Your task to perform on an android device: uninstall "Google Play Music" Image 0: 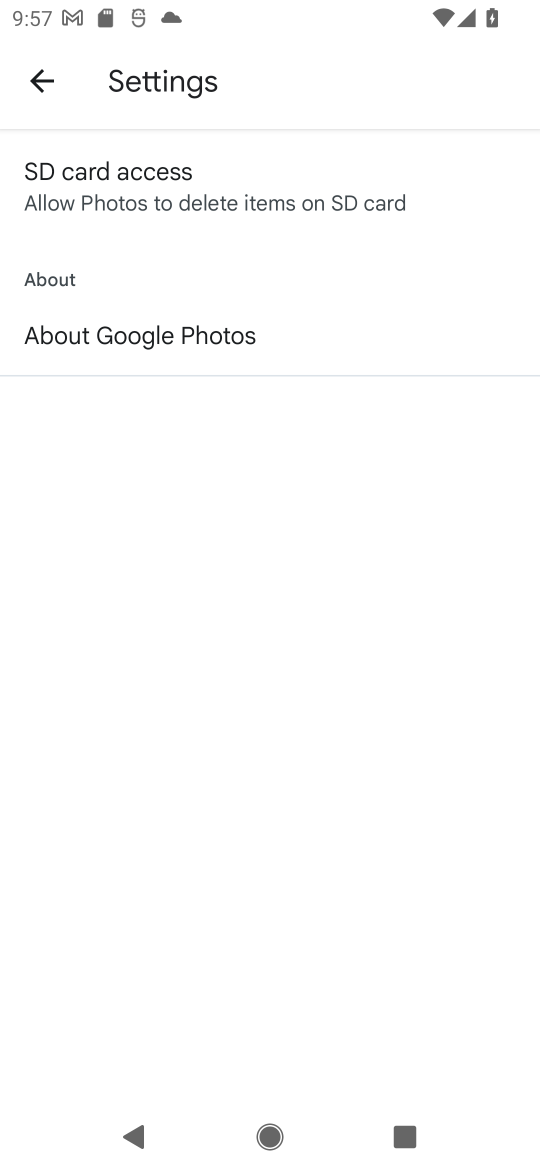
Step 0: press home button
Your task to perform on an android device: uninstall "Google Play Music" Image 1: 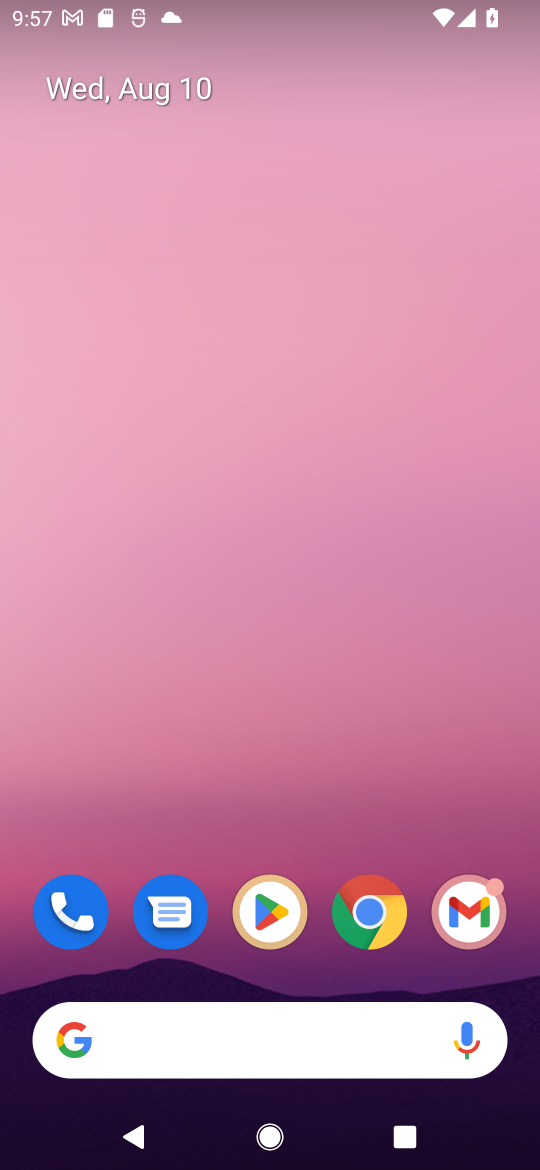
Step 1: drag from (522, 962) to (268, 89)
Your task to perform on an android device: uninstall "Google Play Music" Image 2: 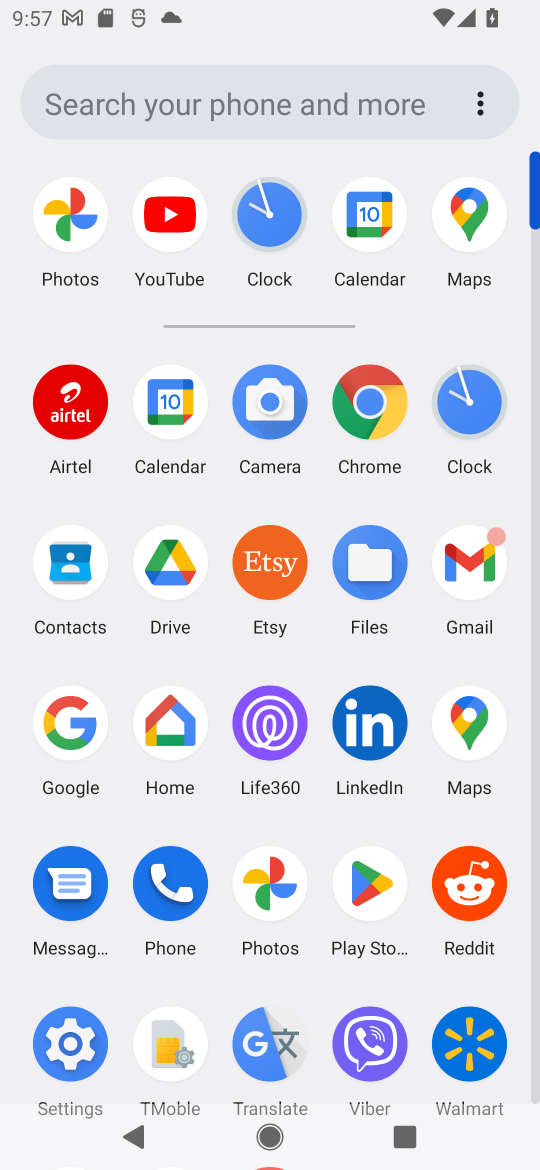
Step 2: click (399, 895)
Your task to perform on an android device: uninstall "Google Play Music" Image 3: 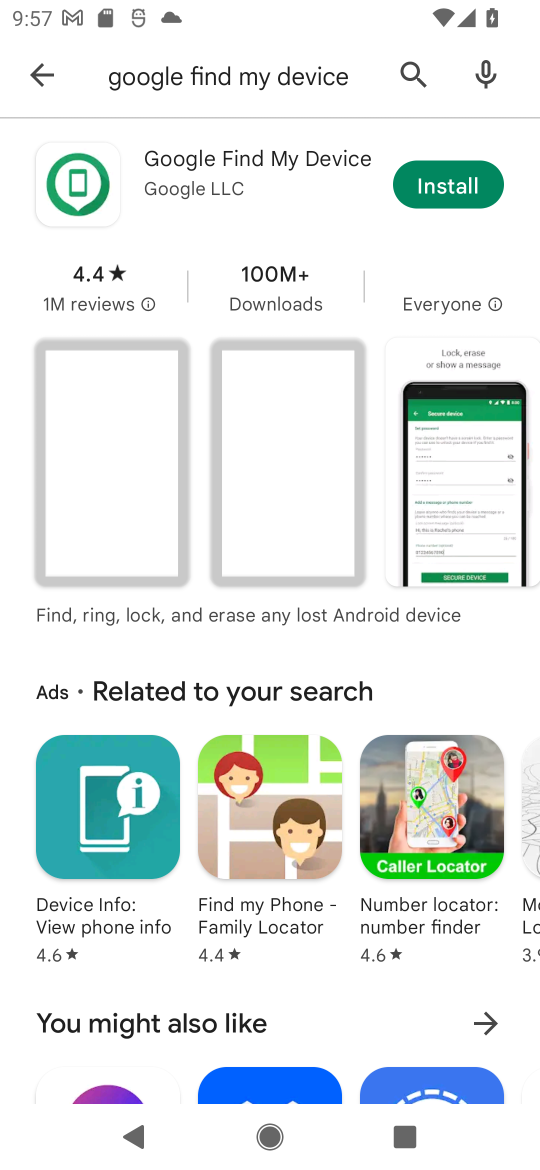
Step 3: press back button
Your task to perform on an android device: uninstall "Google Play Music" Image 4: 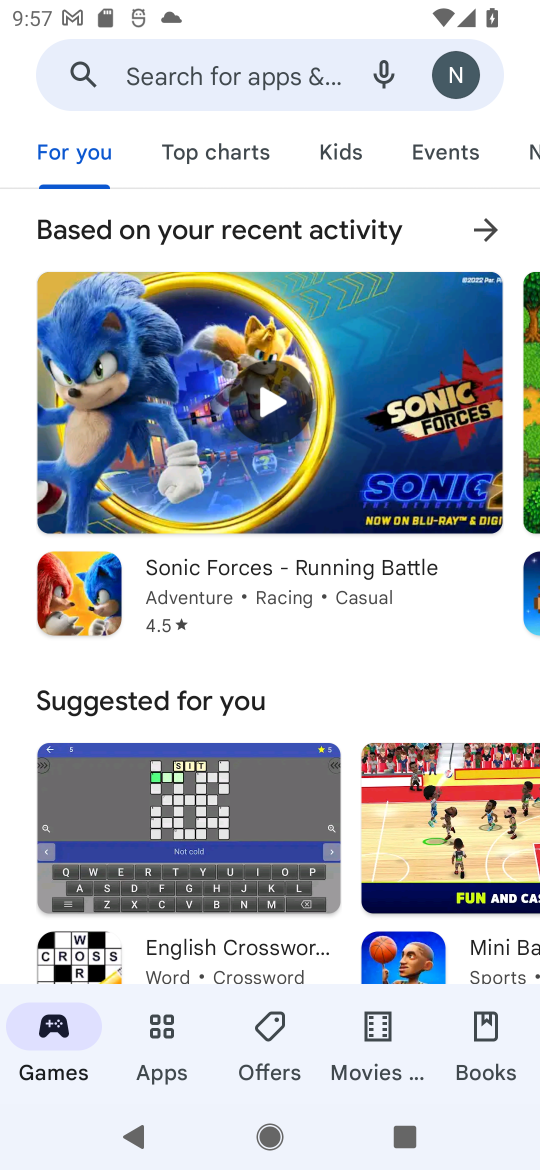
Step 4: click (177, 78)
Your task to perform on an android device: uninstall "Google Play Music" Image 5: 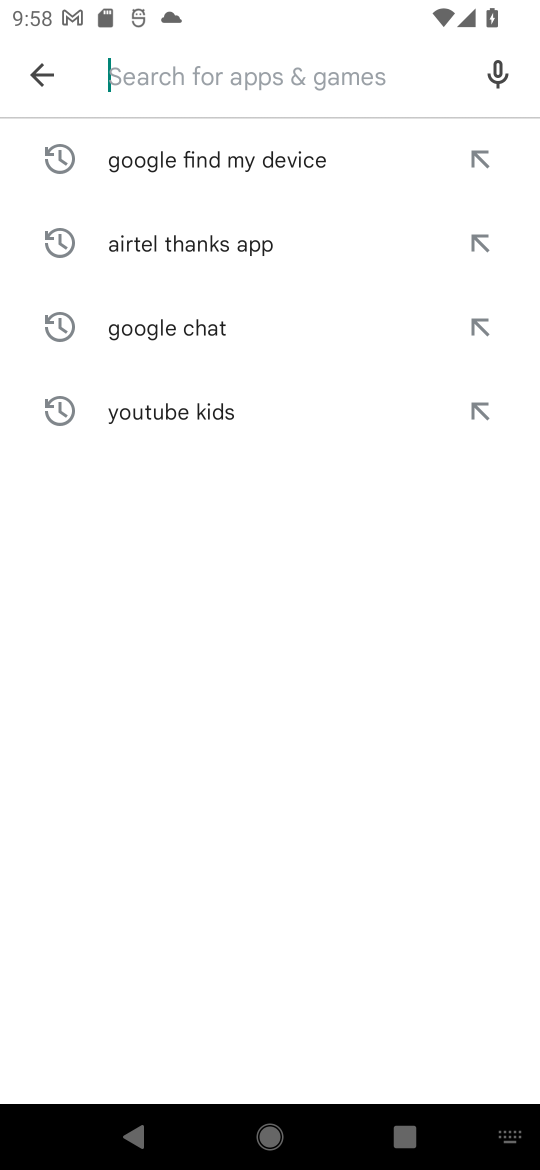
Step 5: type "Google Play Music"
Your task to perform on an android device: uninstall "Google Play Music" Image 6: 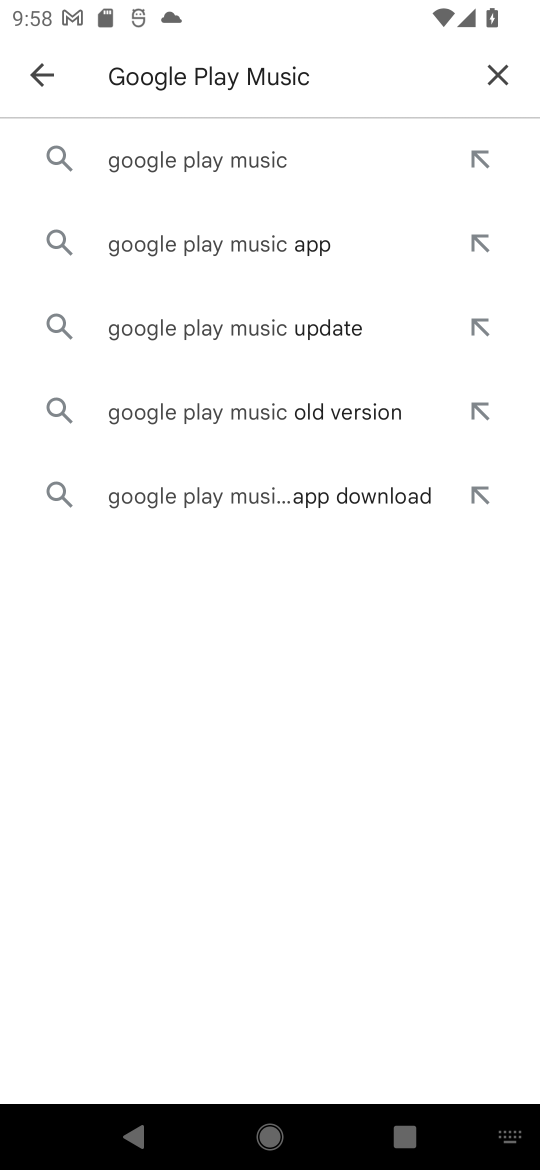
Step 6: click (231, 164)
Your task to perform on an android device: uninstall "Google Play Music" Image 7: 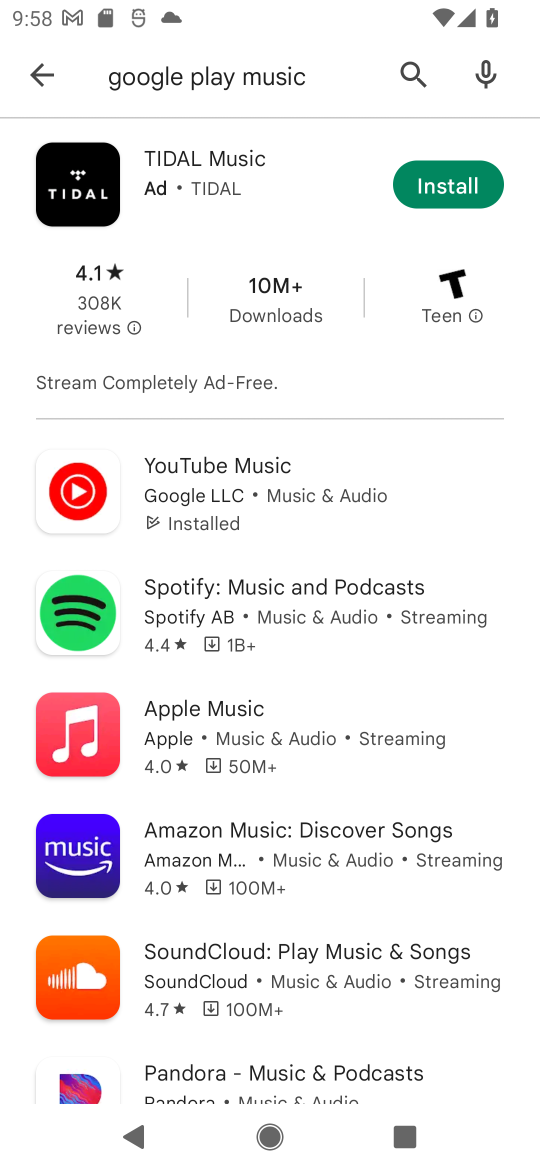
Step 7: task complete